Your task to perform on an android device: Open the web browser Image 0: 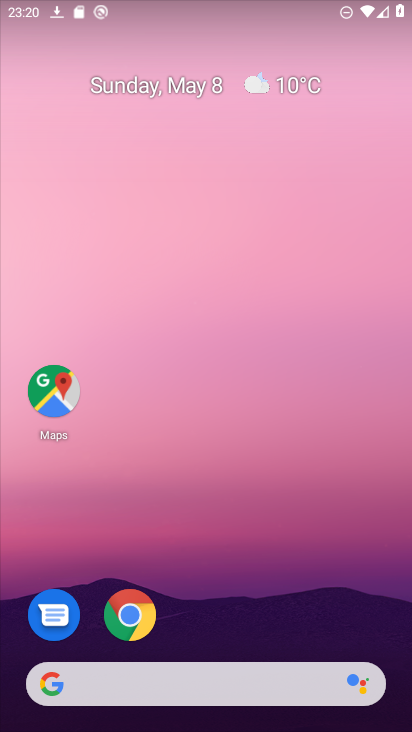
Step 0: drag from (284, 598) to (247, 116)
Your task to perform on an android device: Open the web browser Image 1: 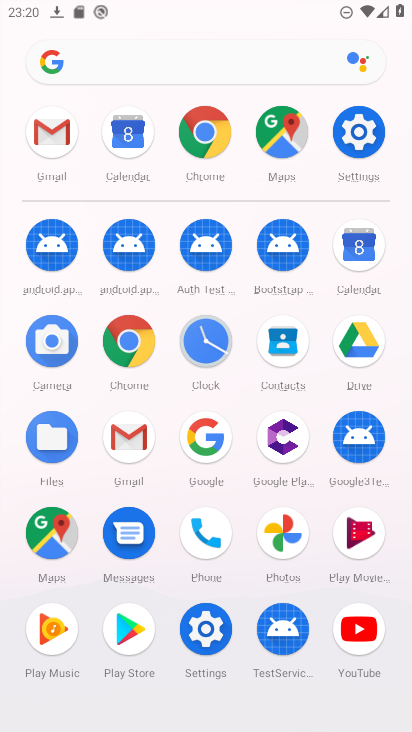
Step 1: click (134, 333)
Your task to perform on an android device: Open the web browser Image 2: 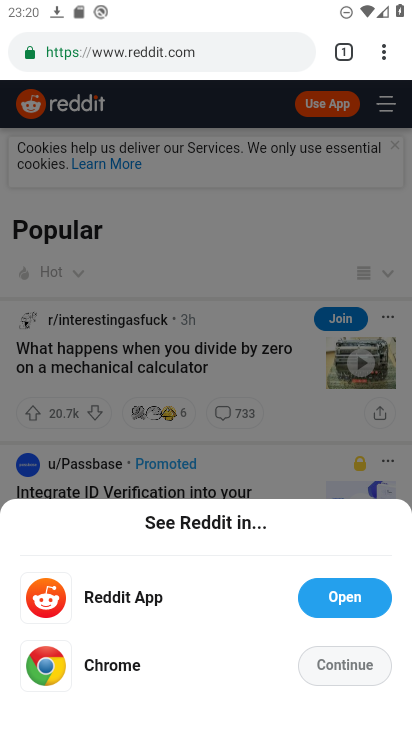
Step 2: task complete